Your task to perform on an android device: toggle translation in the chrome app Image 0: 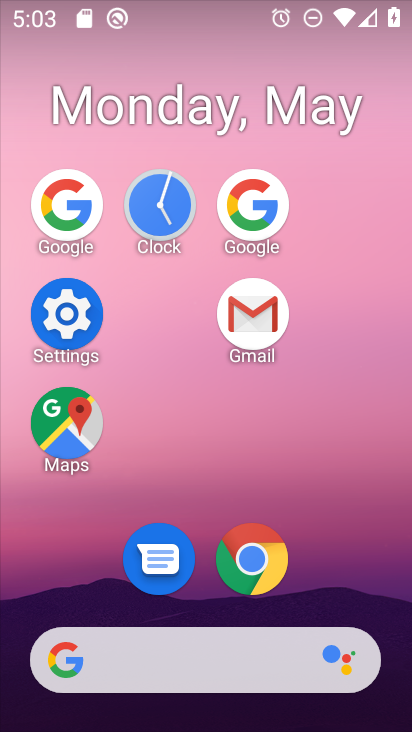
Step 0: click (249, 557)
Your task to perform on an android device: toggle translation in the chrome app Image 1: 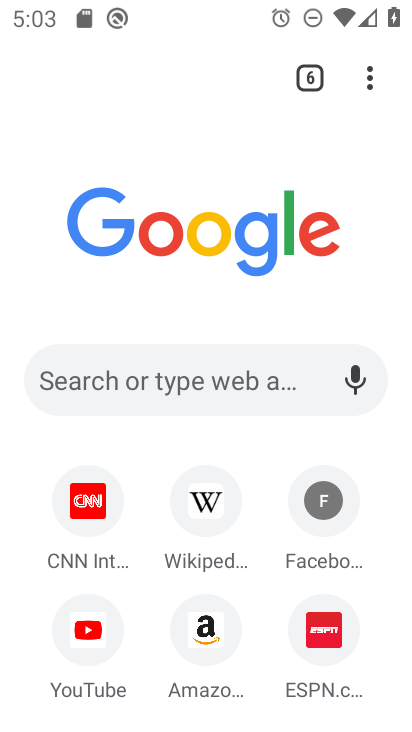
Step 1: click (376, 55)
Your task to perform on an android device: toggle translation in the chrome app Image 2: 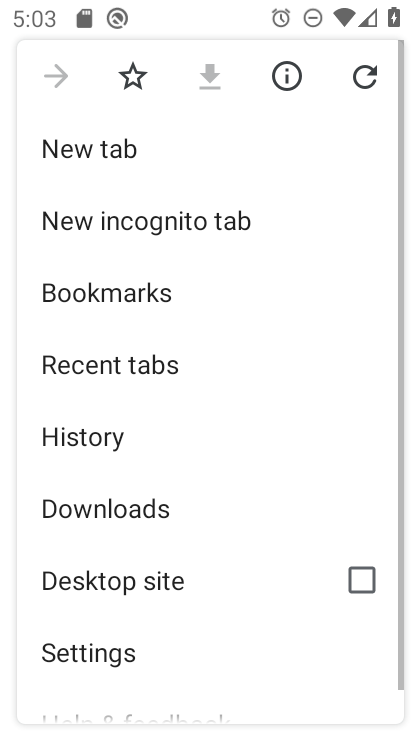
Step 2: drag from (244, 503) to (271, 144)
Your task to perform on an android device: toggle translation in the chrome app Image 3: 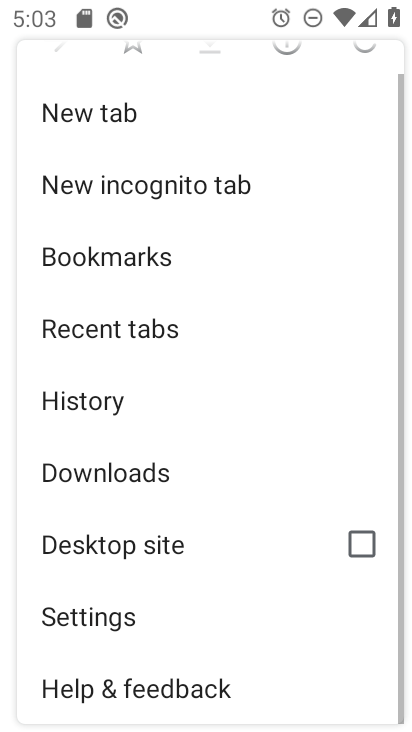
Step 3: click (205, 612)
Your task to perform on an android device: toggle translation in the chrome app Image 4: 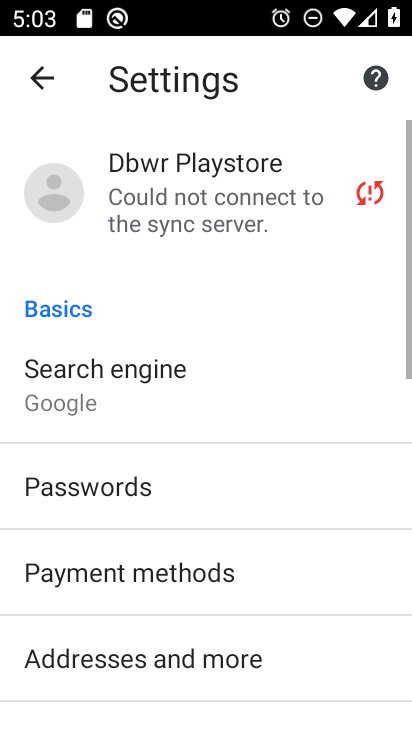
Step 4: drag from (205, 612) to (196, 202)
Your task to perform on an android device: toggle translation in the chrome app Image 5: 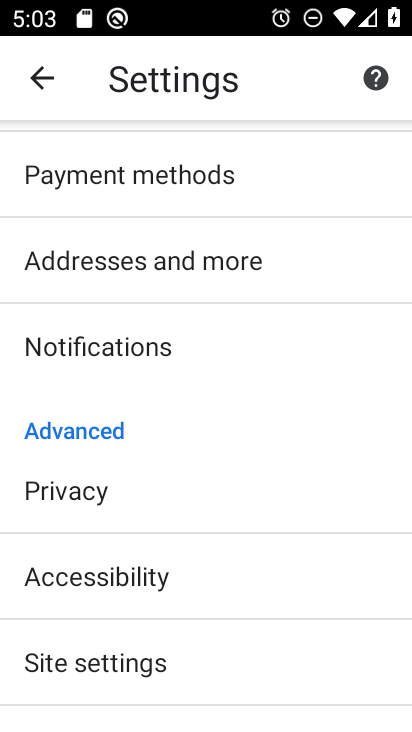
Step 5: drag from (208, 583) to (189, 234)
Your task to perform on an android device: toggle translation in the chrome app Image 6: 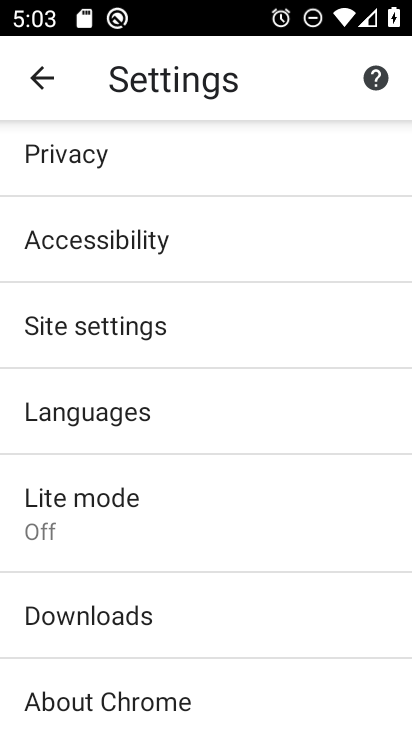
Step 6: click (180, 417)
Your task to perform on an android device: toggle translation in the chrome app Image 7: 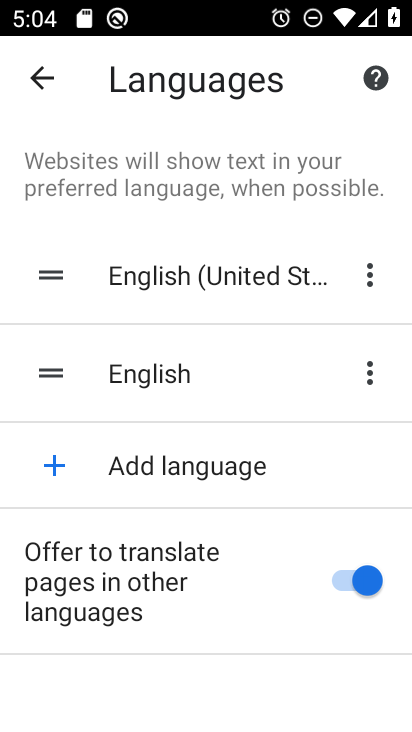
Step 7: click (338, 572)
Your task to perform on an android device: toggle translation in the chrome app Image 8: 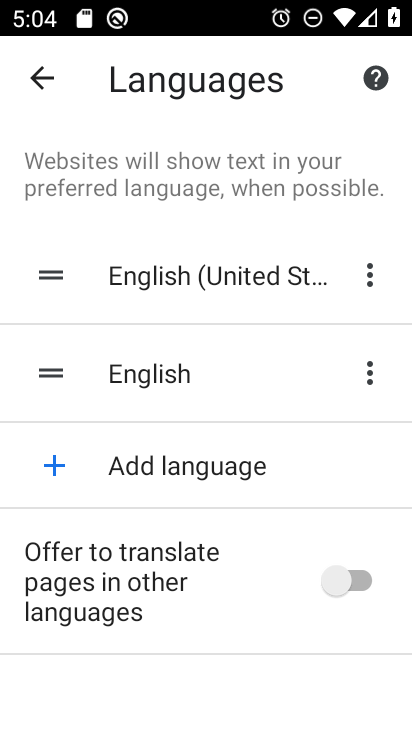
Step 8: task complete